Your task to perform on an android device: see sites visited before in the chrome app Image 0: 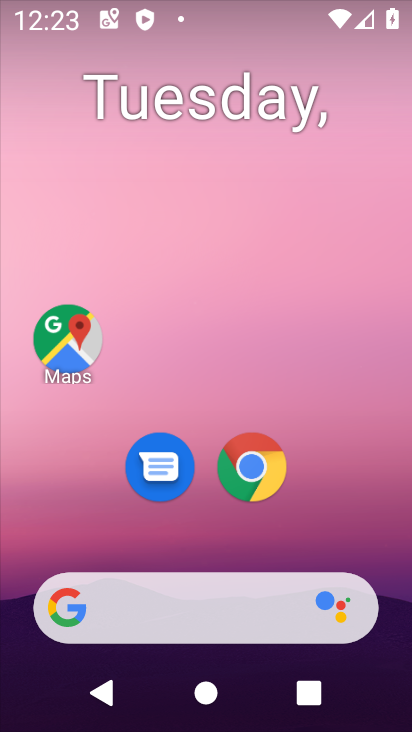
Step 0: drag from (350, 488) to (281, 29)
Your task to perform on an android device: see sites visited before in the chrome app Image 1: 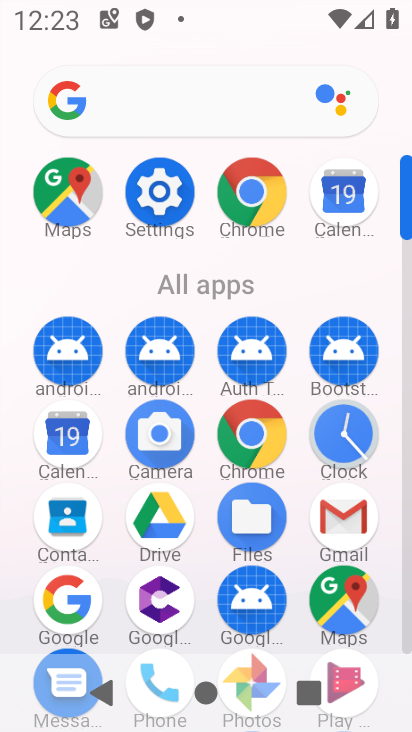
Step 1: drag from (20, 459) to (5, 204)
Your task to perform on an android device: see sites visited before in the chrome app Image 2: 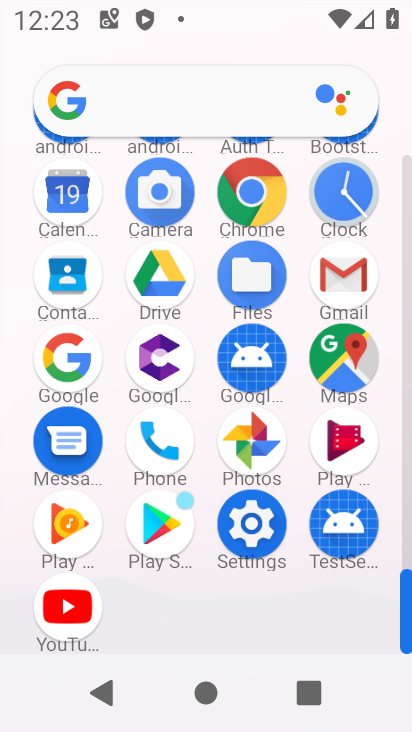
Step 2: drag from (5, 564) to (32, 298)
Your task to perform on an android device: see sites visited before in the chrome app Image 3: 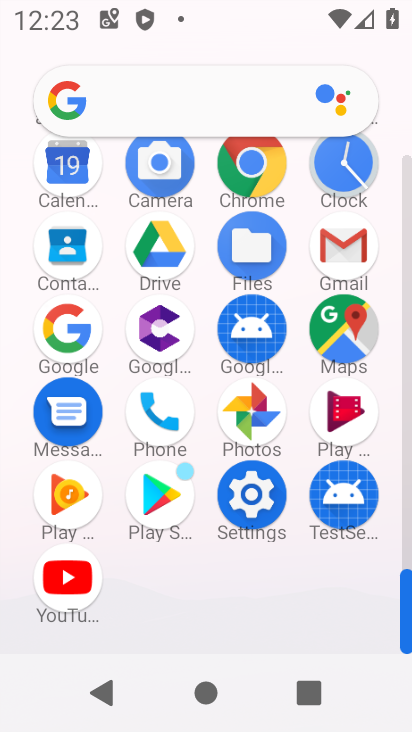
Step 3: drag from (16, 238) to (4, 386)
Your task to perform on an android device: see sites visited before in the chrome app Image 4: 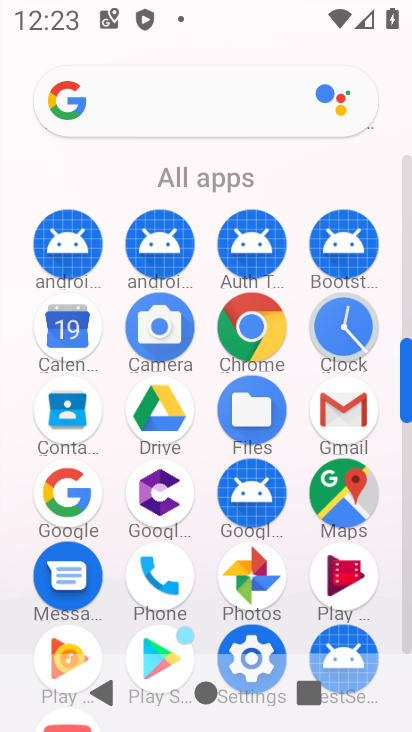
Step 4: click (258, 323)
Your task to perform on an android device: see sites visited before in the chrome app Image 5: 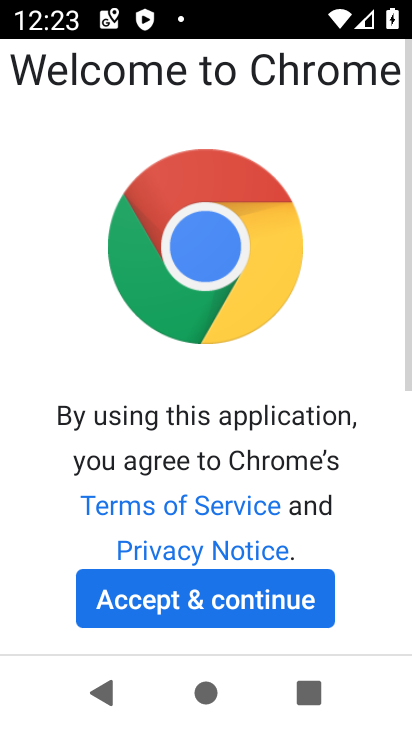
Step 5: click (198, 610)
Your task to perform on an android device: see sites visited before in the chrome app Image 6: 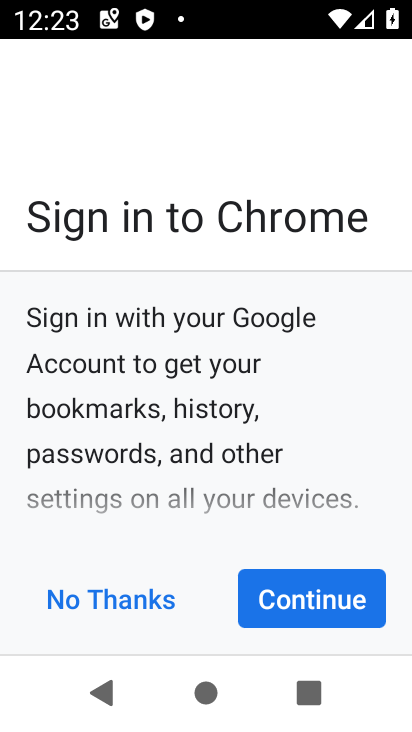
Step 6: click (289, 594)
Your task to perform on an android device: see sites visited before in the chrome app Image 7: 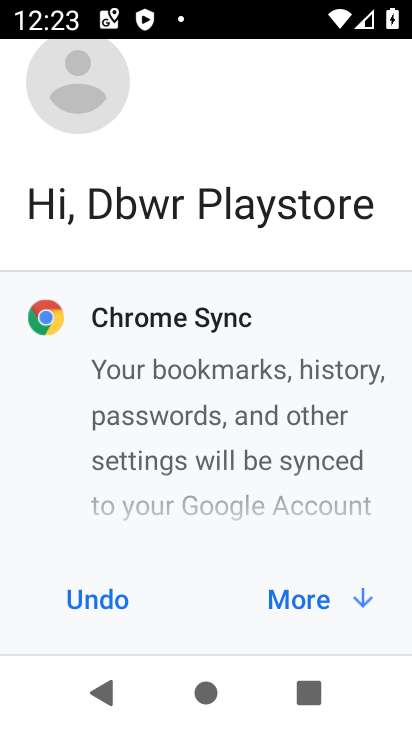
Step 7: click (303, 597)
Your task to perform on an android device: see sites visited before in the chrome app Image 8: 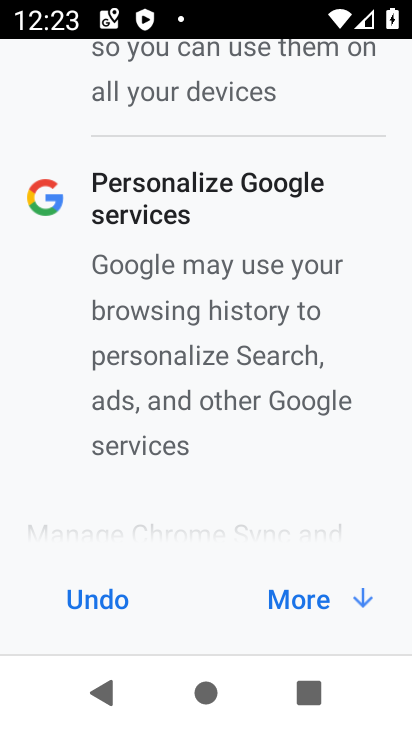
Step 8: click (303, 597)
Your task to perform on an android device: see sites visited before in the chrome app Image 9: 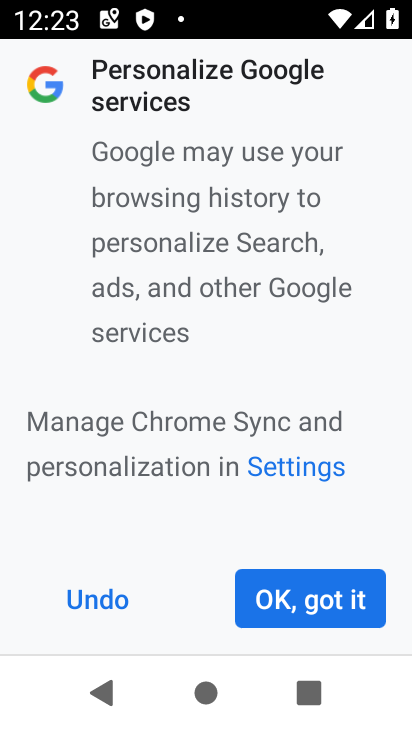
Step 9: click (303, 597)
Your task to perform on an android device: see sites visited before in the chrome app Image 10: 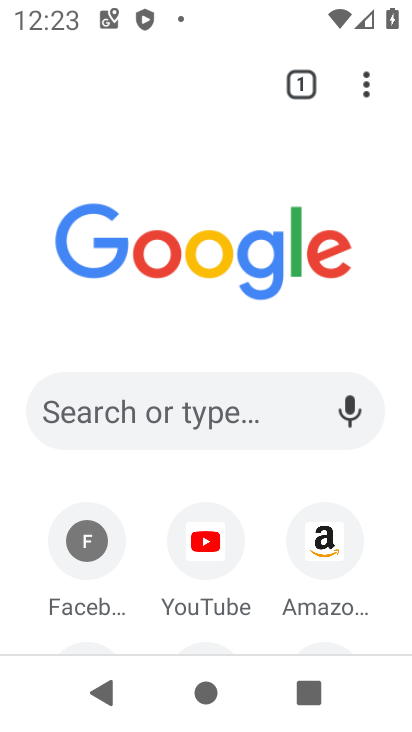
Step 10: task complete